Your task to perform on an android device: turn off airplane mode Image 0: 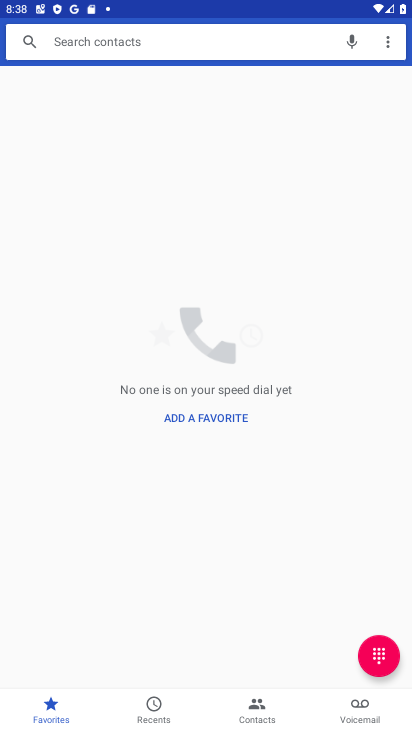
Step 0: press back button
Your task to perform on an android device: turn off airplane mode Image 1: 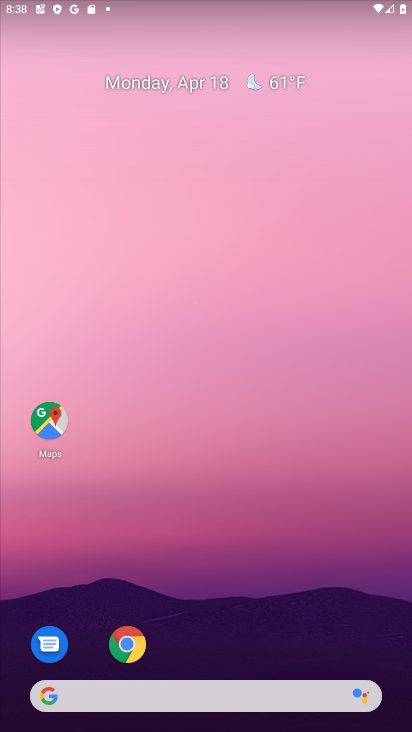
Step 1: drag from (184, 685) to (138, 161)
Your task to perform on an android device: turn off airplane mode Image 2: 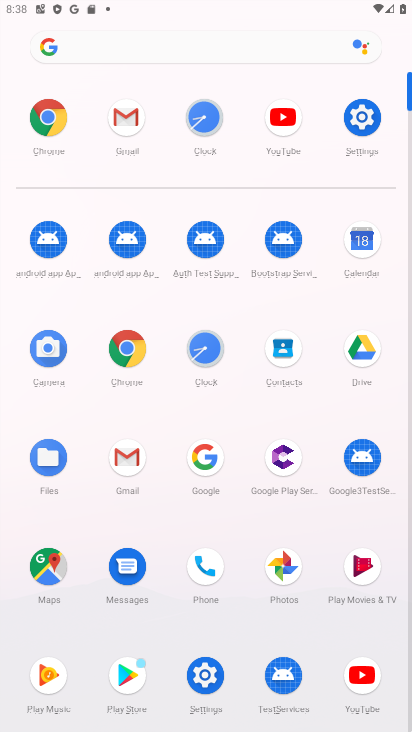
Step 2: click (357, 125)
Your task to perform on an android device: turn off airplane mode Image 3: 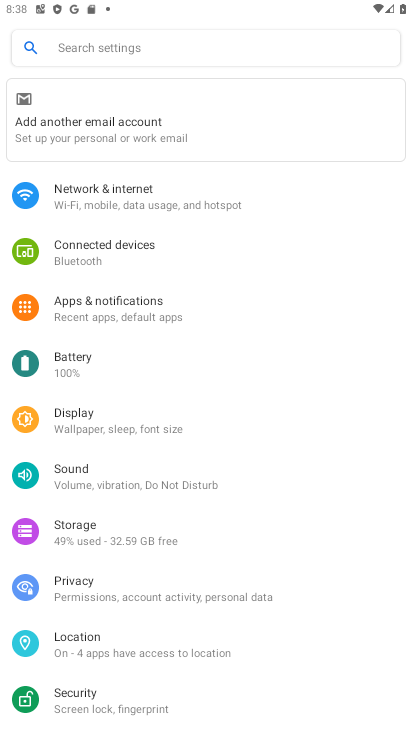
Step 3: click (150, 186)
Your task to perform on an android device: turn off airplane mode Image 4: 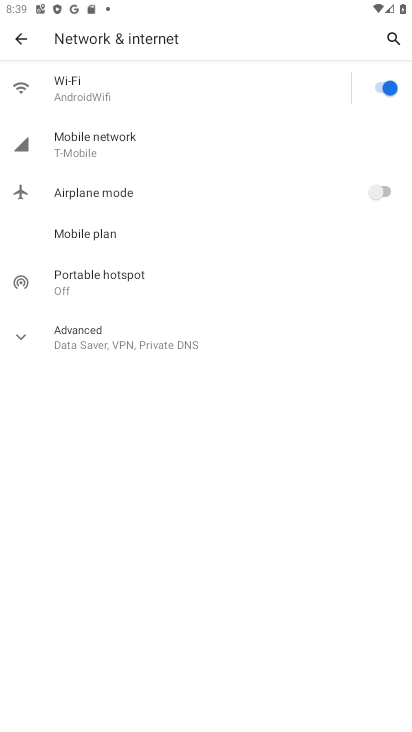
Step 4: task complete